Your task to perform on an android device: Go to network settings Image 0: 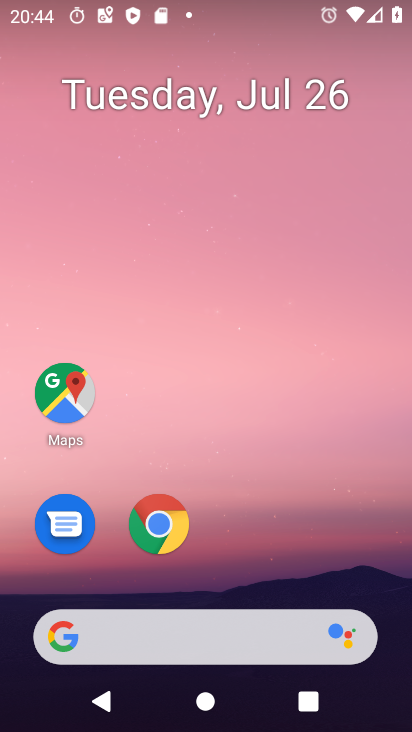
Step 0: drag from (280, 553) to (310, 1)
Your task to perform on an android device: Go to network settings Image 1: 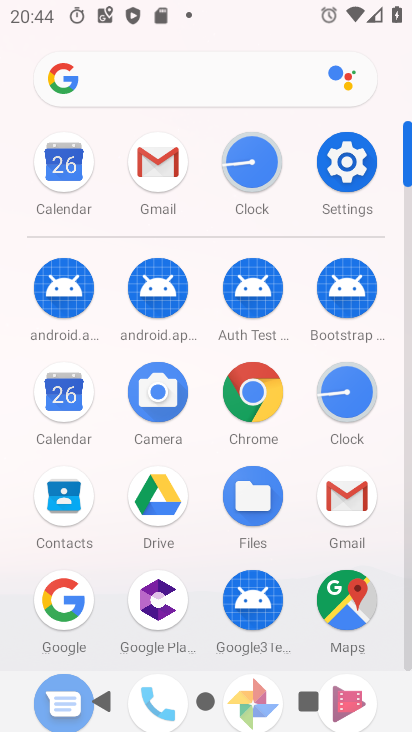
Step 1: click (336, 146)
Your task to perform on an android device: Go to network settings Image 2: 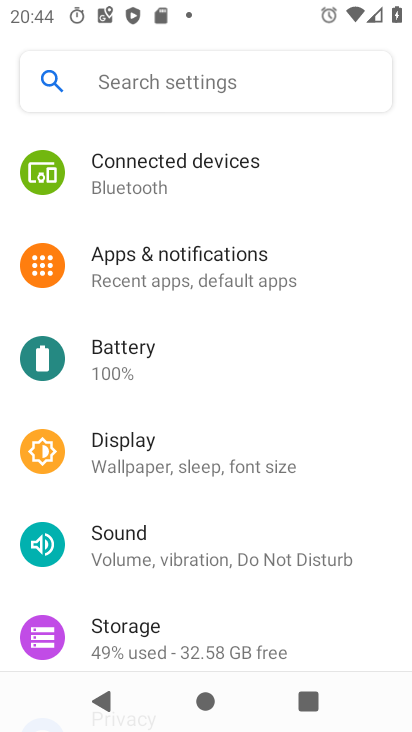
Step 2: drag from (231, 220) to (251, 653)
Your task to perform on an android device: Go to network settings Image 3: 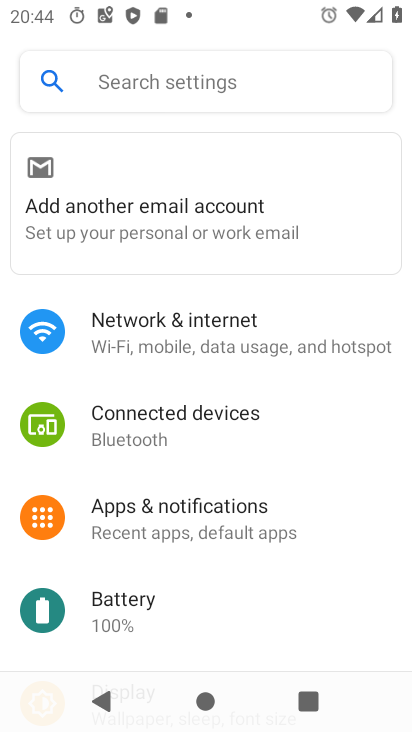
Step 3: click (231, 341)
Your task to perform on an android device: Go to network settings Image 4: 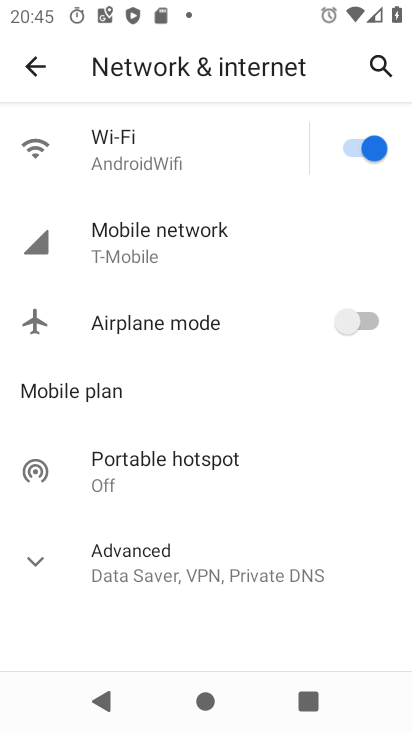
Step 4: task complete